Your task to perform on an android device: Open internet settings Image 0: 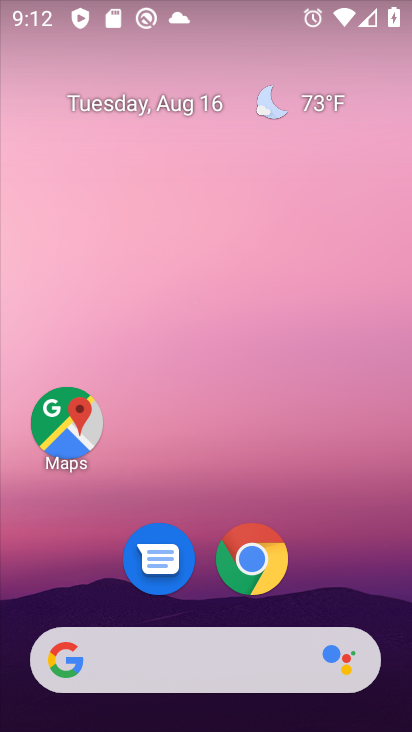
Step 0: drag from (194, 672) to (287, 99)
Your task to perform on an android device: Open internet settings Image 1: 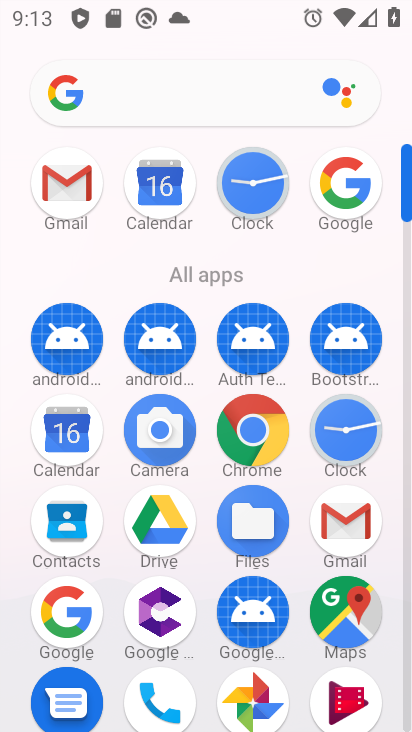
Step 1: drag from (314, 286) to (309, 72)
Your task to perform on an android device: Open internet settings Image 2: 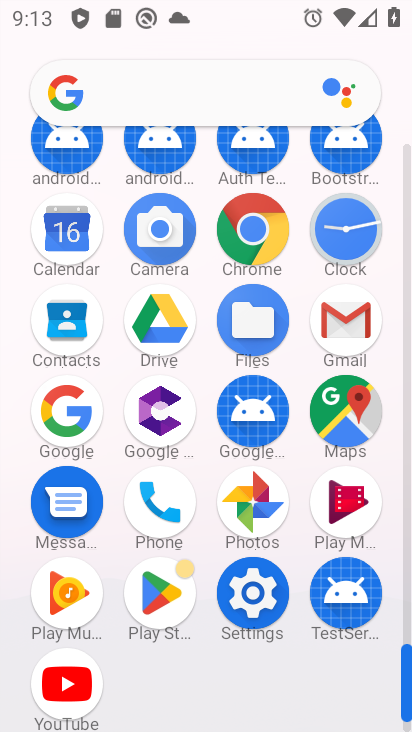
Step 2: click (253, 593)
Your task to perform on an android device: Open internet settings Image 3: 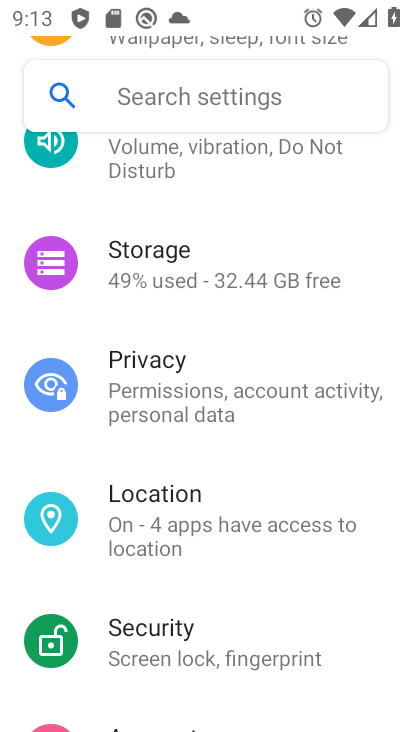
Step 3: drag from (236, 242) to (211, 455)
Your task to perform on an android device: Open internet settings Image 4: 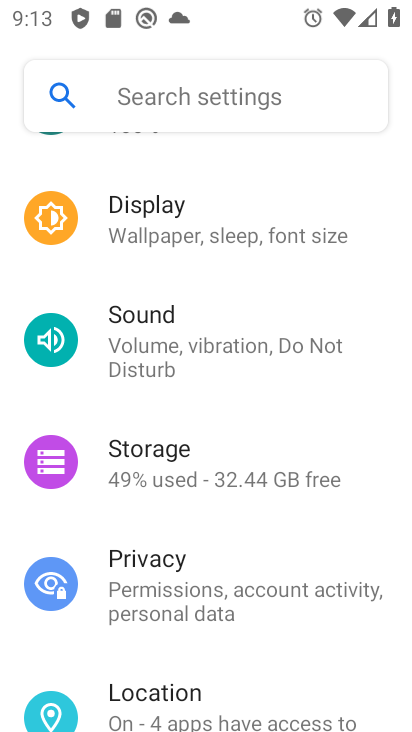
Step 4: drag from (200, 289) to (198, 517)
Your task to perform on an android device: Open internet settings Image 5: 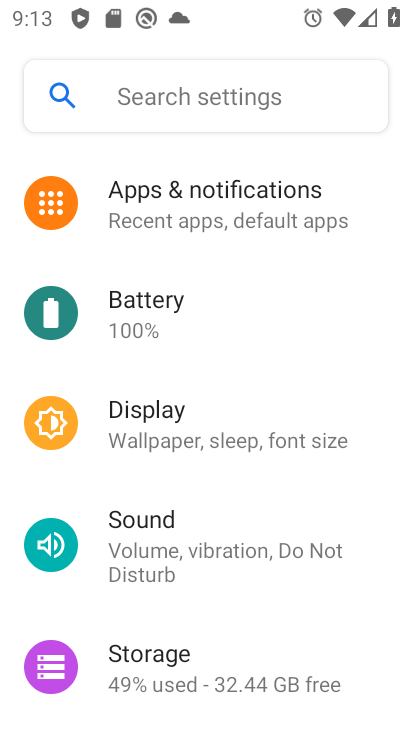
Step 5: drag from (194, 306) to (203, 495)
Your task to perform on an android device: Open internet settings Image 6: 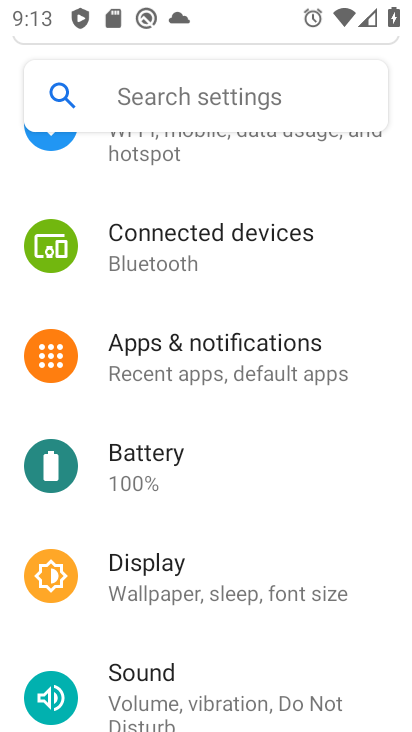
Step 6: drag from (192, 320) to (236, 559)
Your task to perform on an android device: Open internet settings Image 7: 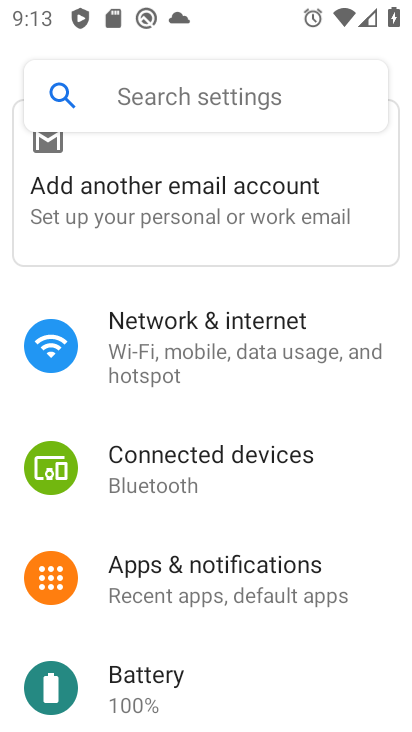
Step 7: click (183, 349)
Your task to perform on an android device: Open internet settings Image 8: 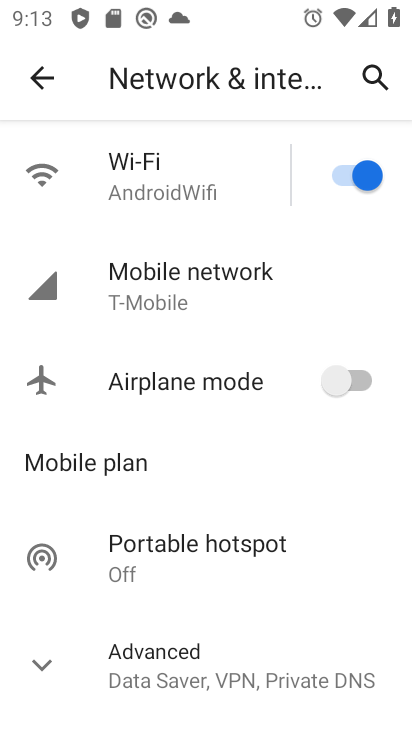
Step 8: click (144, 194)
Your task to perform on an android device: Open internet settings Image 9: 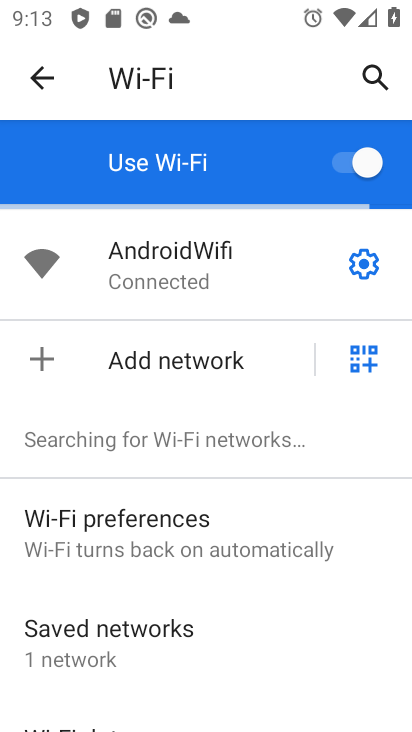
Step 9: task complete